Your task to perform on an android device: clear all cookies in the chrome app Image 0: 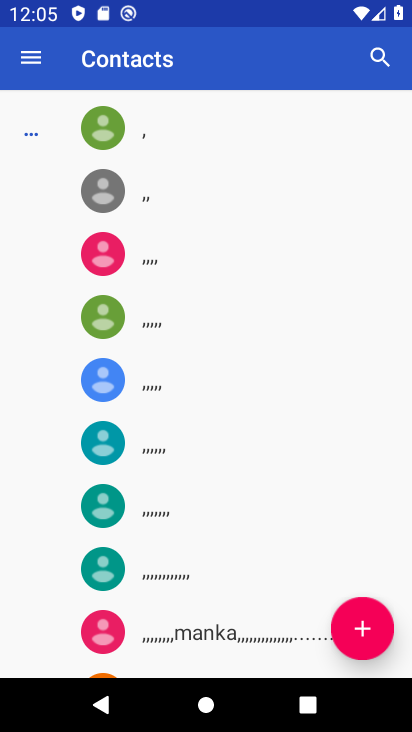
Step 0: press home button
Your task to perform on an android device: clear all cookies in the chrome app Image 1: 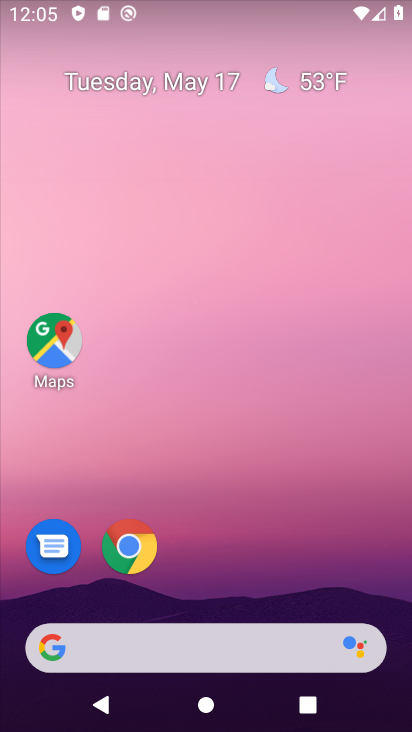
Step 1: click (133, 552)
Your task to perform on an android device: clear all cookies in the chrome app Image 2: 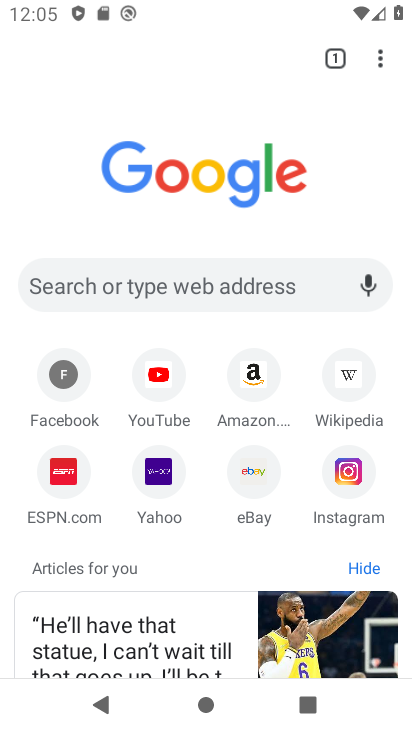
Step 2: drag from (379, 55) to (229, 505)
Your task to perform on an android device: clear all cookies in the chrome app Image 3: 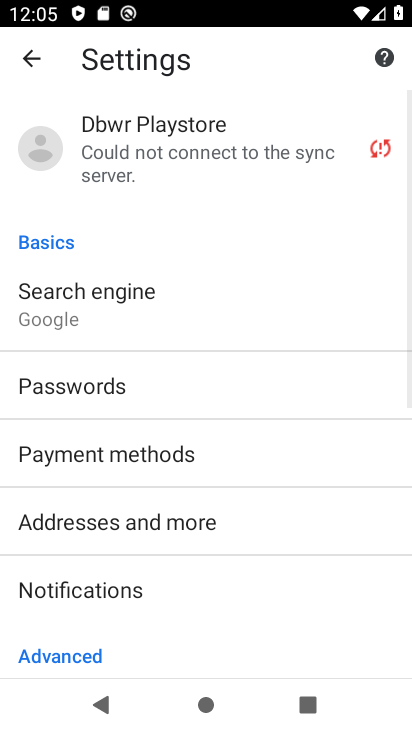
Step 3: drag from (138, 612) to (277, 140)
Your task to perform on an android device: clear all cookies in the chrome app Image 4: 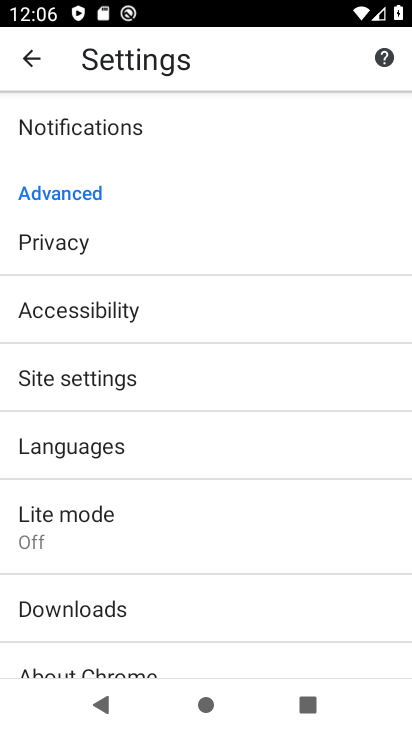
Step 4: click (72, 236)
Your task to perform on an android device: clear all cookies in the chrome app Image 5: 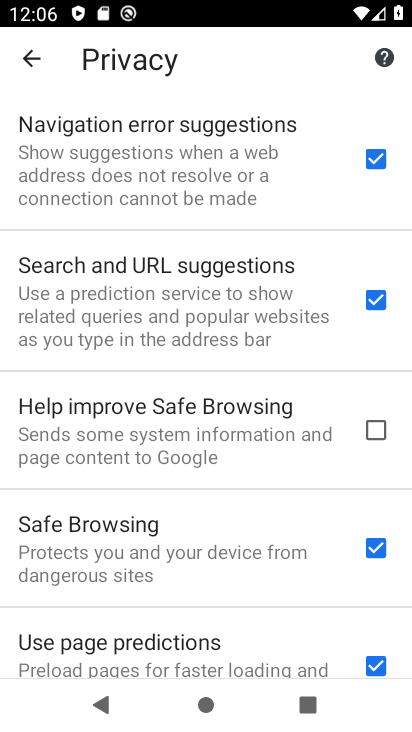
Step 5: drag from (136, 618) to (297, 169)
Your task to perform on an android device: clear all cookies in the chrome app Image 6: 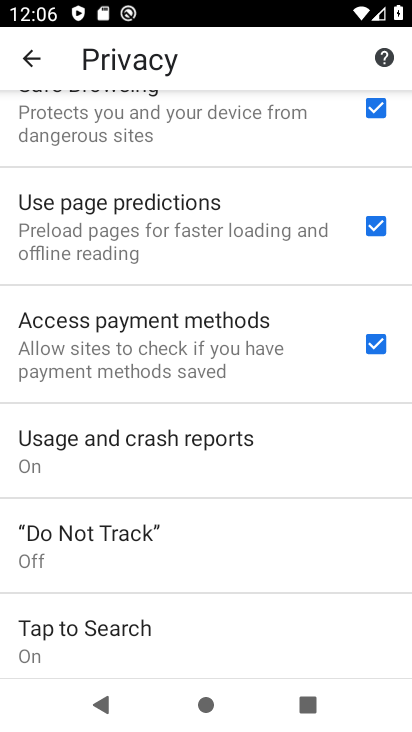
Step 6: drag from (164, 624) to (320, 97)
Your task to perform on an android device: clear all cookies in the chrome app Image 7: 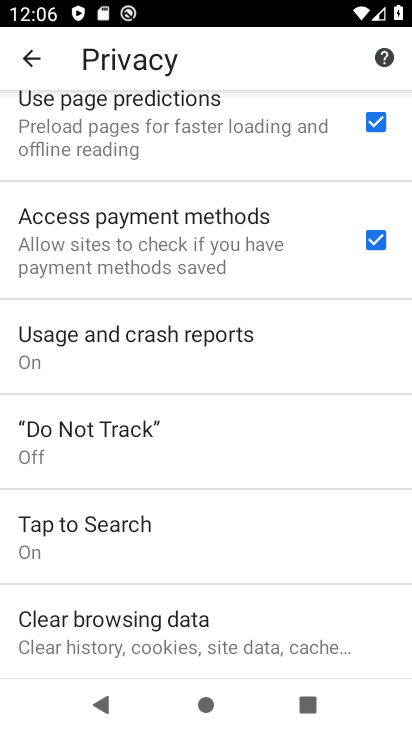
Step 7: click (246, 628)
Your task to perform on an android device: clear all cookies in the chrome app Image 8: 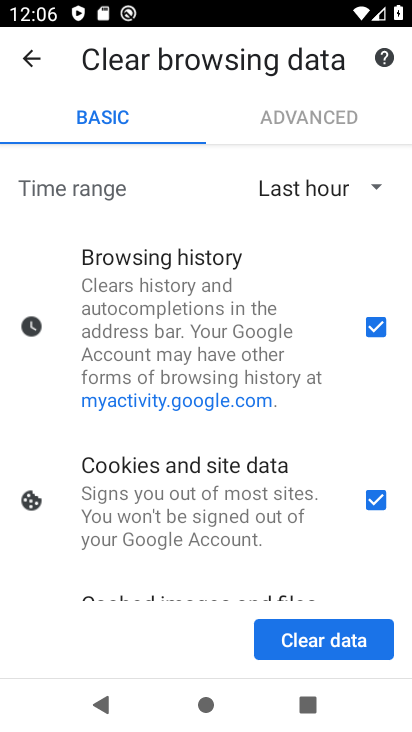
Step 8: click (377, 323)
Your task to perform on an android device: clear all cookies in the chrome app Image 9: 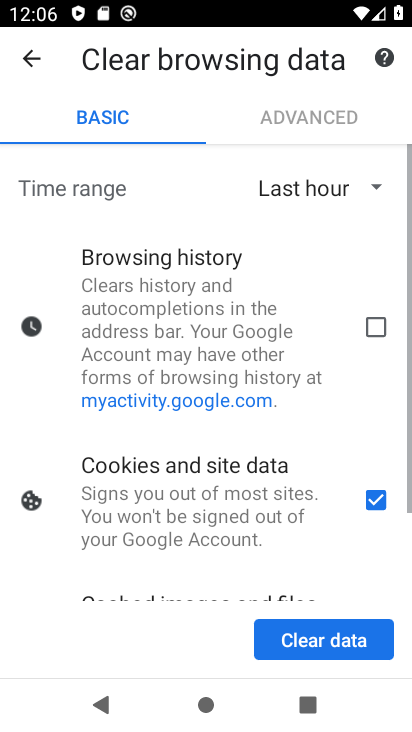
Step 9: drag from (204, 443) to (265, 217)
Your task to perform on an android device: clear all cookies in the chrome app Image 10: 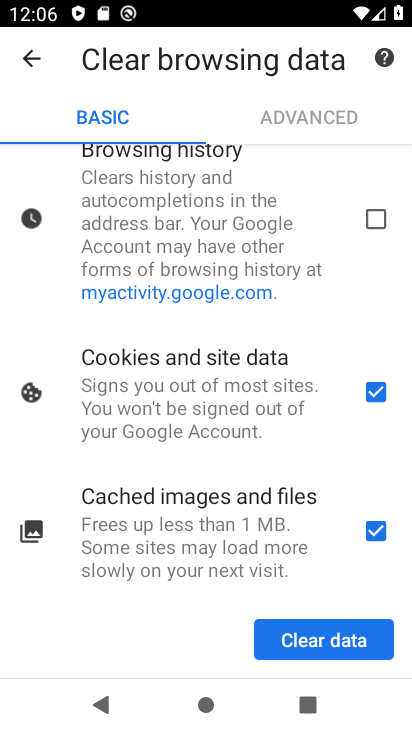
Step 10: click (374, 521)
Your task to perform on an android device: clear all cookies in the chrome app Image 11: 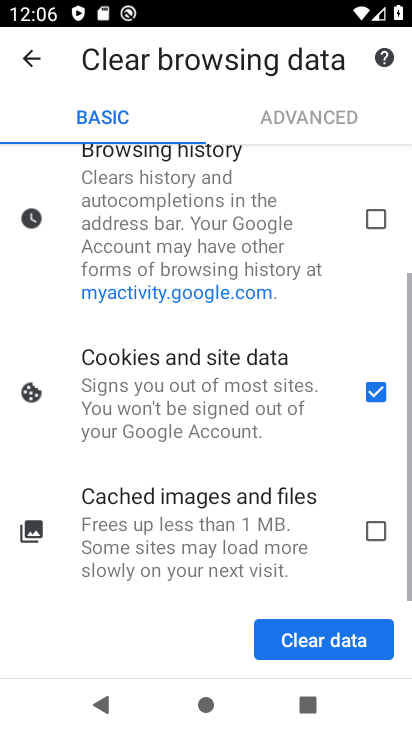
Step 11: drag from (263, 258) to (227, 536)
Your task to perform on an android device: clear all cookies in the chrome app Image 12: 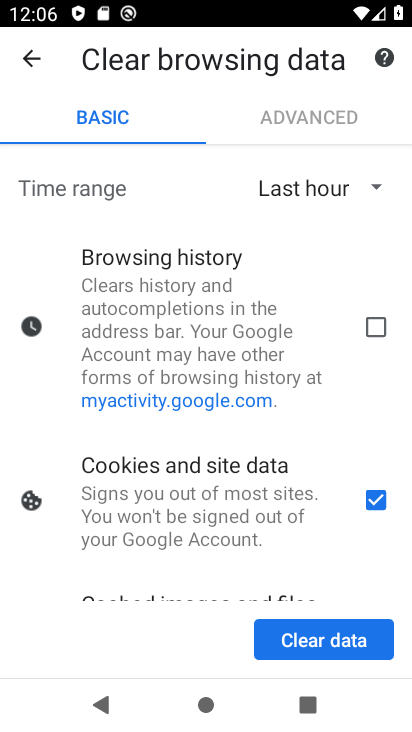
Step 12: click (368, 194)
Your task to perform on an android device: clear all cookies in the chrome app Image 13: 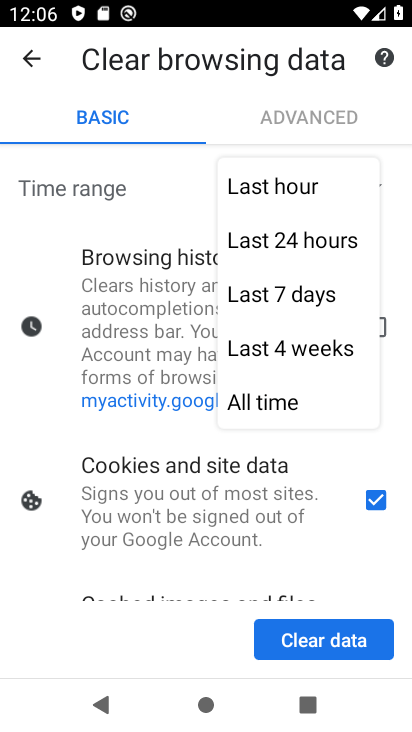
Step 13: click (274, 402)
Your task to perform on an android device: clear all cookies in the chrome app Image 14: 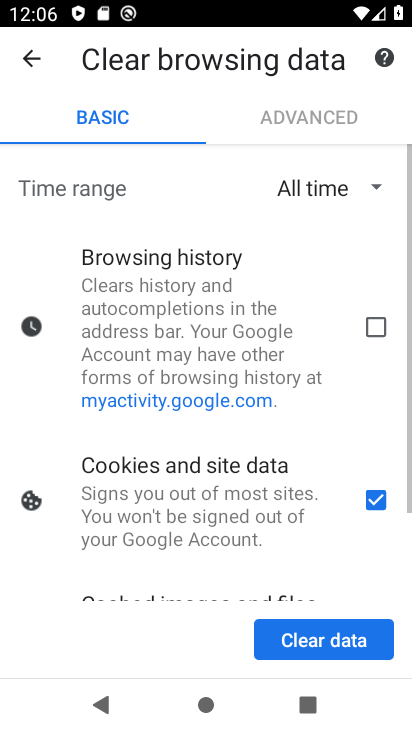
Step 14: drag from (192, 502) to (320, 163)
Your task to perform on an android device: clear all cookies in the chrome app Image 15: 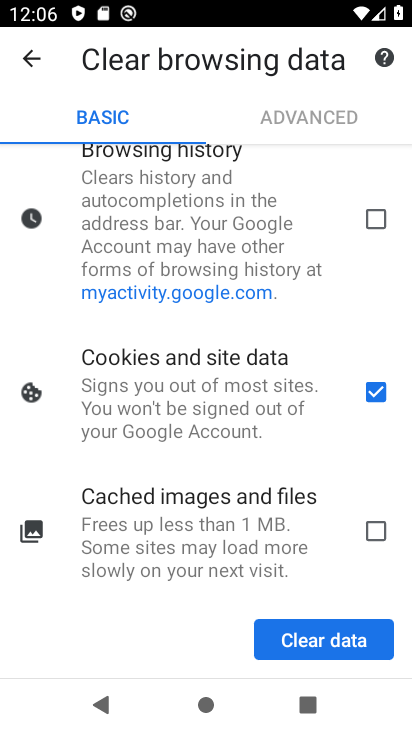
Step 15: click (307, 638)
Your task to perform on an android device: clear all cookies in the chrome app Image 16: 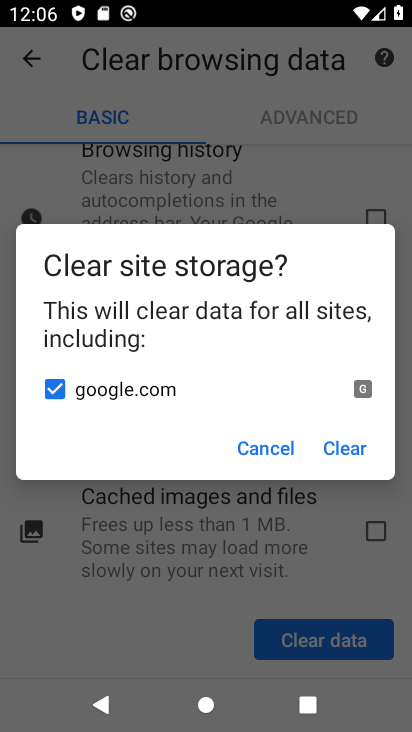
Step 16: click (338, 436)
Your task to perform on an android device: clear all cookies in the chrome app Image 17: 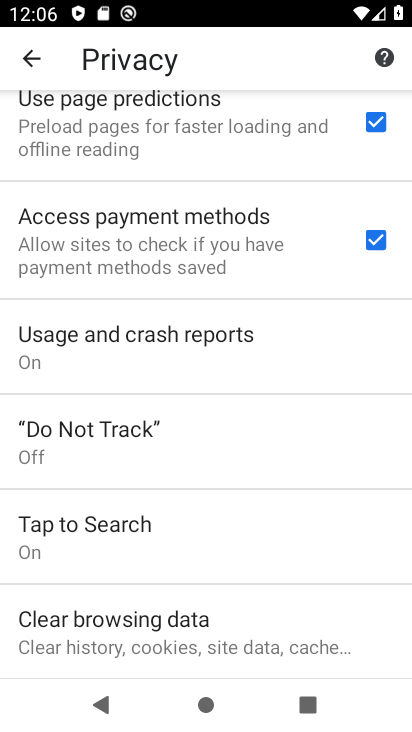
Step 17: task complete